Your task to perform on an android device: toggle airplane mode Image 0: 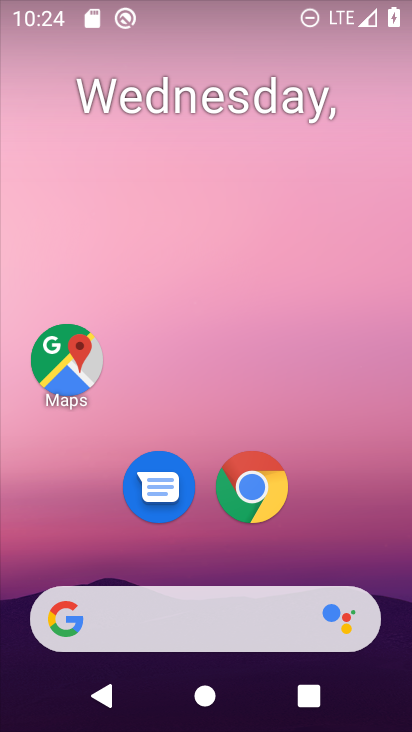
Step 0: drag from (366, 485) to (245, 109)
Your task to perform on an android device: toggle airplane mode Image 1: 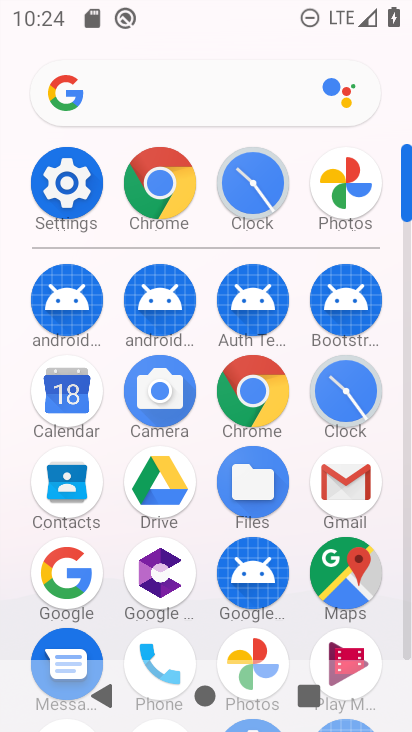
Step 1: click (64, 179)
Your task to perform on an android device: toggle airplane mode Image 2: 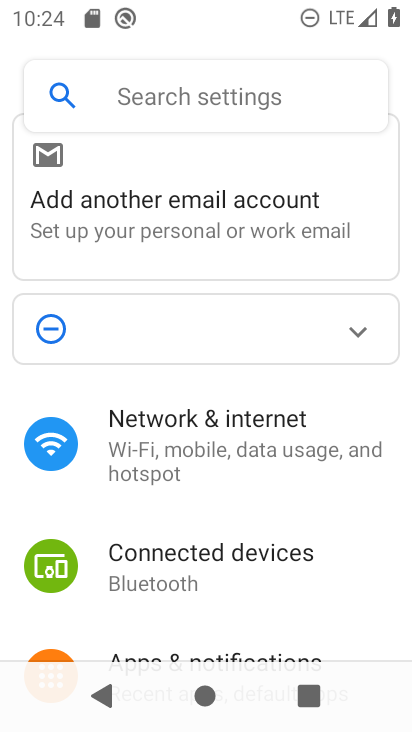
Step 2: drag from (225, 506) to (180, 321)
Your task to perform on an android device: toggle airplane mode Image 3: 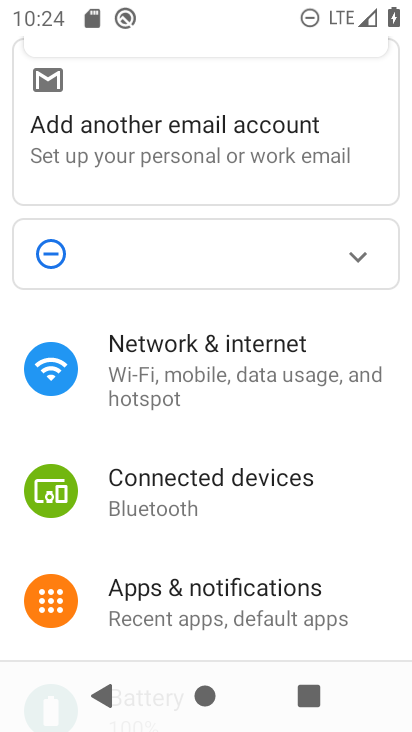
Step 3: click (209, 352)
Your task to perform on an android device: toggle airplane mode Image 4: 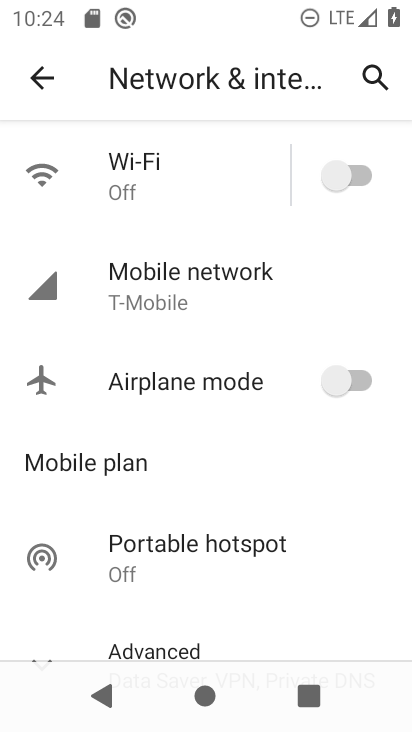
Step 4: click (324, 383)
Your task to perform on an android device: toggle airplane mode Image 5: 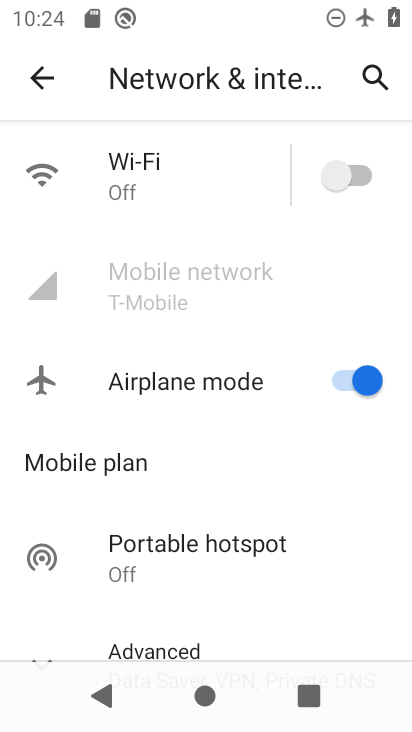
Step 5: task complete